Your task to perform on an android device: Open Wikipedia Image 0: 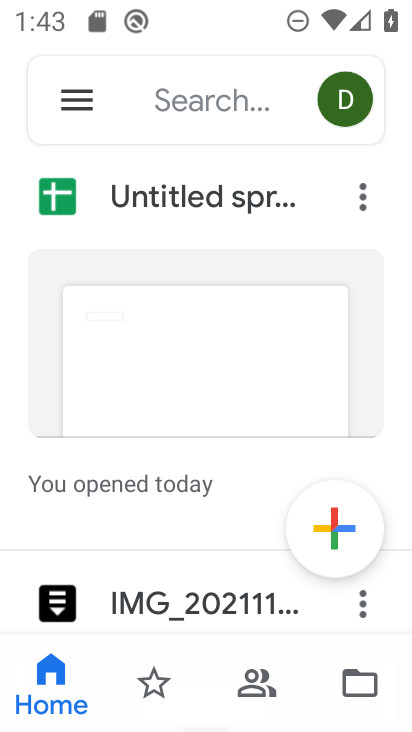
Step 0: press home button
Your task to perform on an android device: Open Wikipedia Image 1: 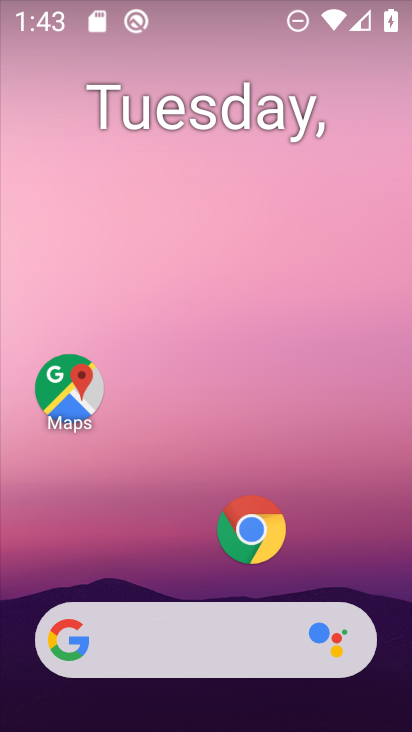
Step 1: click (262, 524)
Your task to perform on an android device: Open Wikipedia Image 2: 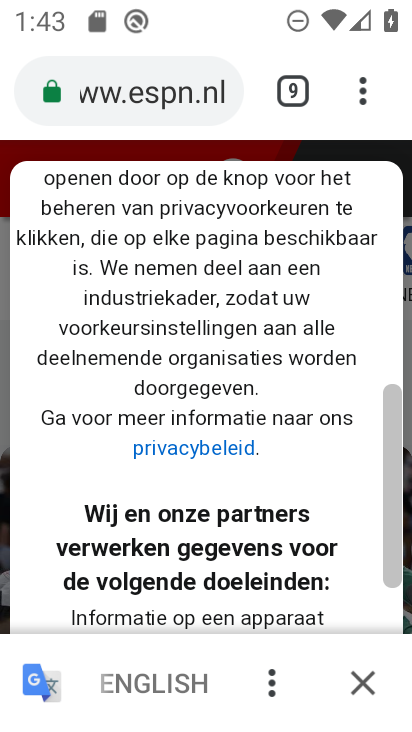
Step 2: click (365, 93)
Your task to perform on an android device: Open Wikipedia Image 3: 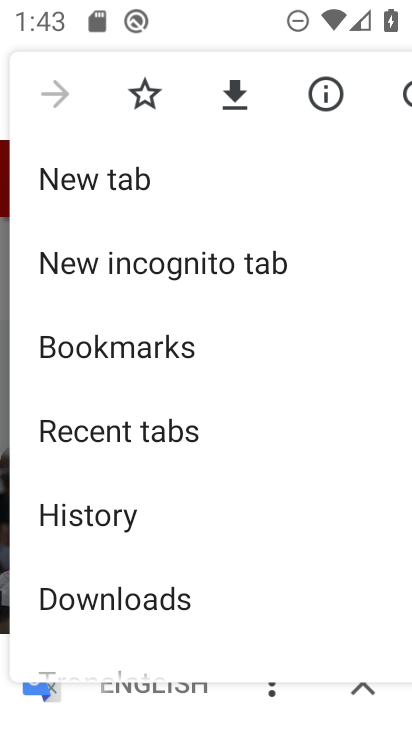
Step 3: click (112, 171)
Your task to perform on an android device: Open Wikipedia Image 4: 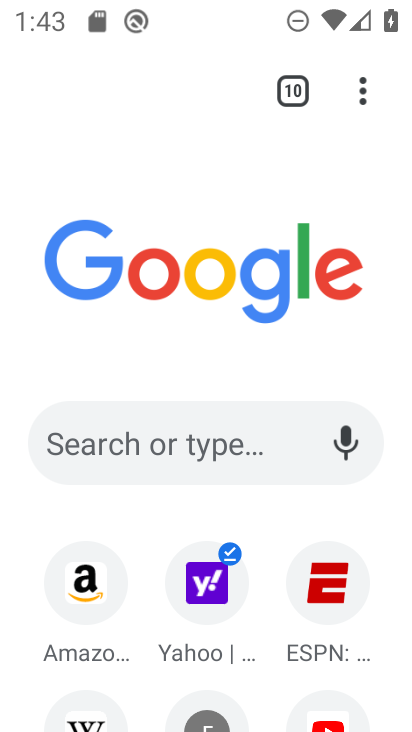
Step 4: click (88, 717)
Your task to perform on an android device: Open Wikipedia Image 5: 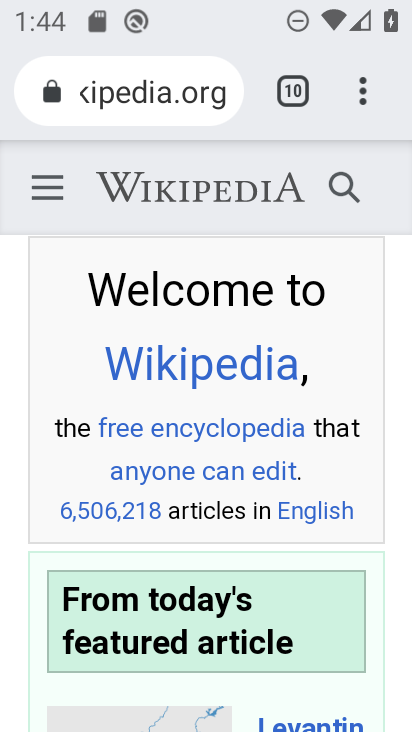
Step 5: task complete